Your task to perform on an android device: change keyboard looks Image 0: 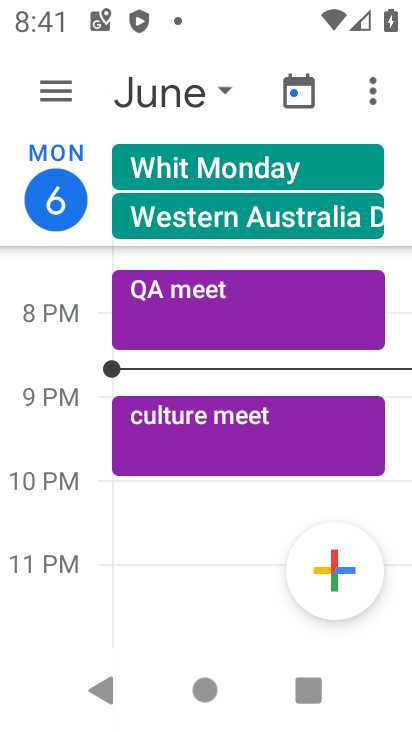
Step 0: press home button
Your task to perform on an android device: change keyboard looks Image 1: 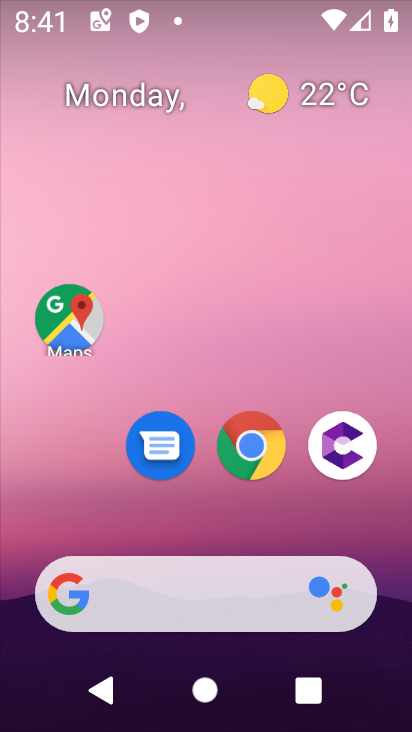
Step 1: drag from (189, 328) to (174, 47)
Your task to perform on an android device: change keyboard looks Image 2: 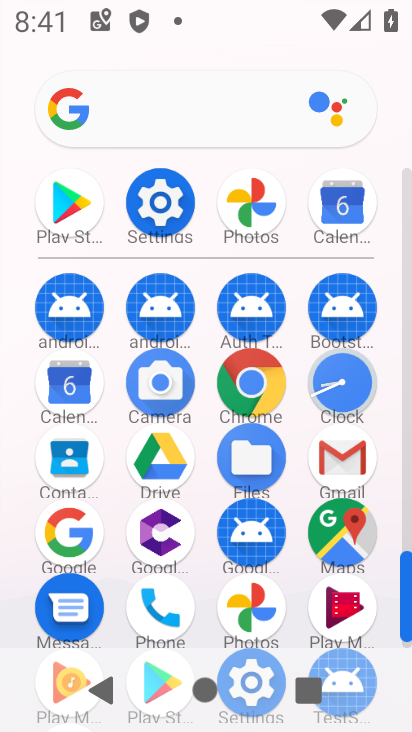
Step 2: click (172, 193)
Your task to perform on an android device: change keyboard looks Image 3: 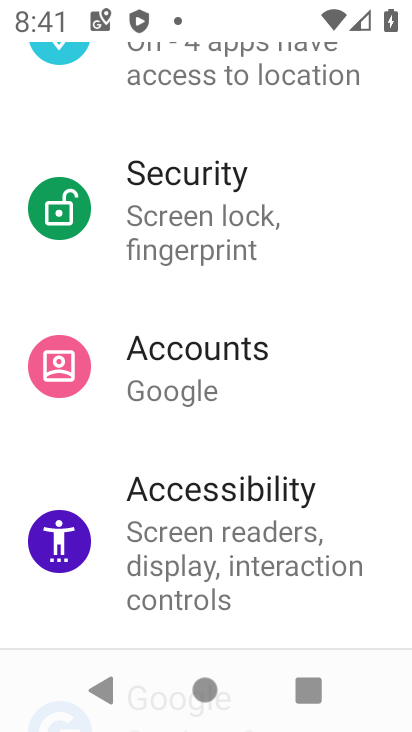
Step 3: drag from (65, 616) to (107, 178)
Your task to perform on an android device: change keyboard looks Image 4: 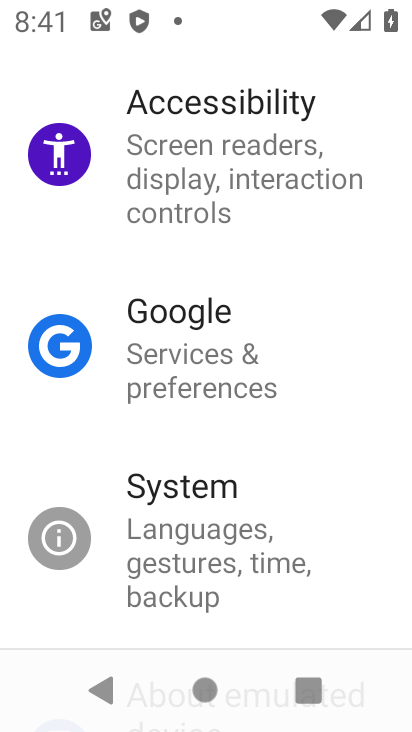
Step 4: drag from (67, 611) to (51, 387)
Your task to perform on an android device: change keyboard looks Image 5: 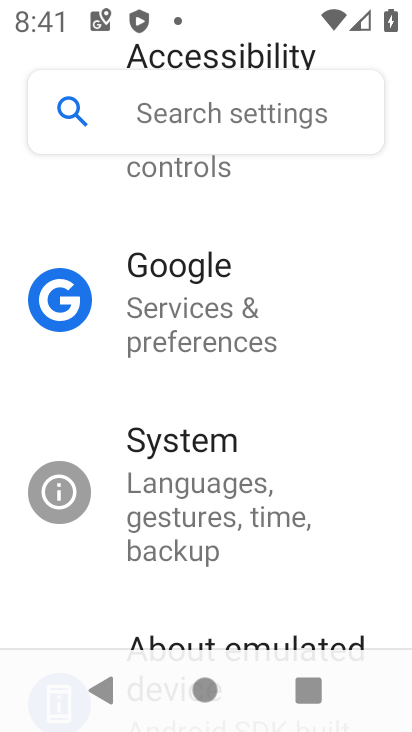
Step 5: click (199, 524)
Your task to perform on an android device: change keyboard looks Image 6: 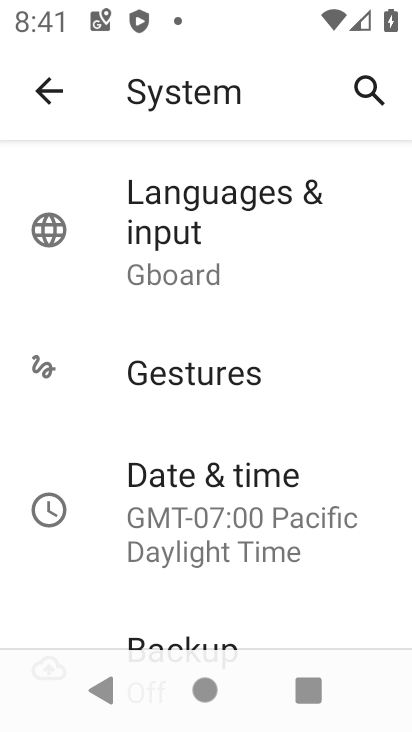
Step 6: click (178, 204)
Your task to perform on an android device: change keyboard looks Image 7: 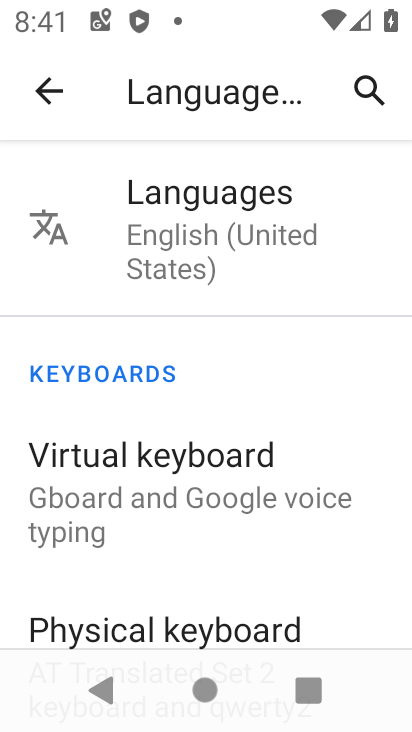
Step 7: click (78, 483)
Your task to perform on an android device: change keyboard looks Image 8: 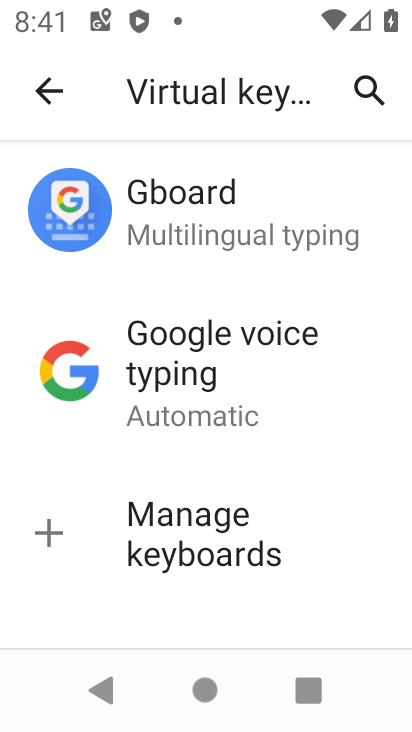
Step 8: click (115, 234)
Your task to perform on an android device: change keyboard looks Image 9: 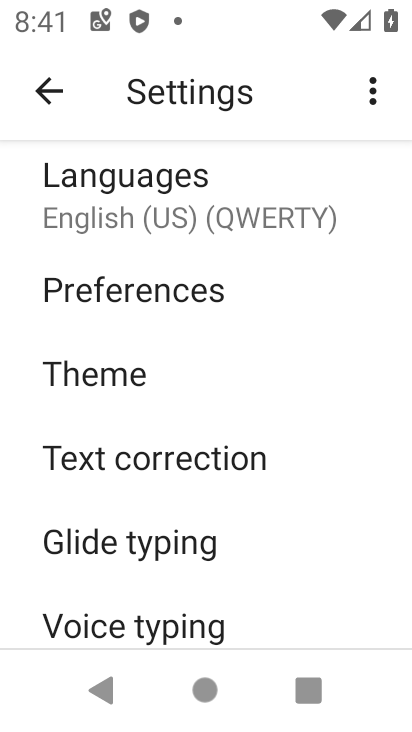
Step 9: click (101, 381)
Your task to perform on an android device: change keyboard looks Image 10: 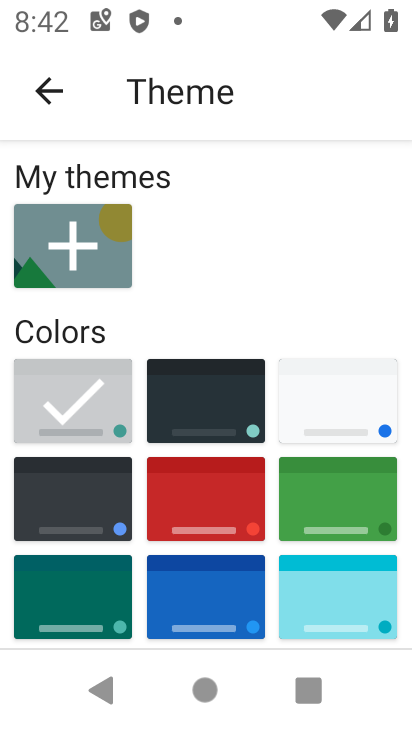
Step 10: click (195, 503)
Your task to perform on an android device: change keyboard looks Image 11: 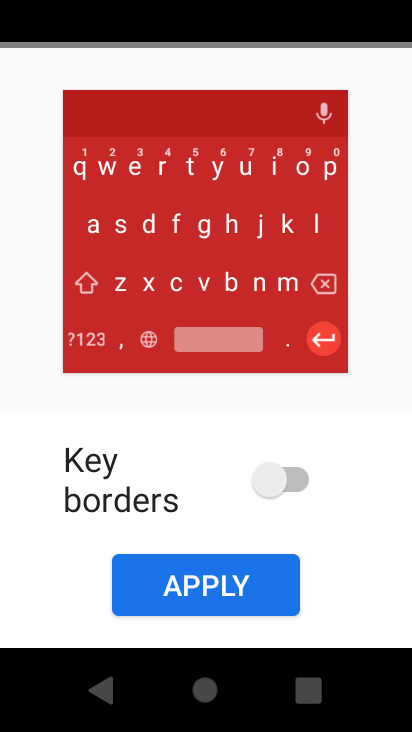
Step 11: click (225, 584)
Your task to perform on an android device: change keyboard looks Image 12: 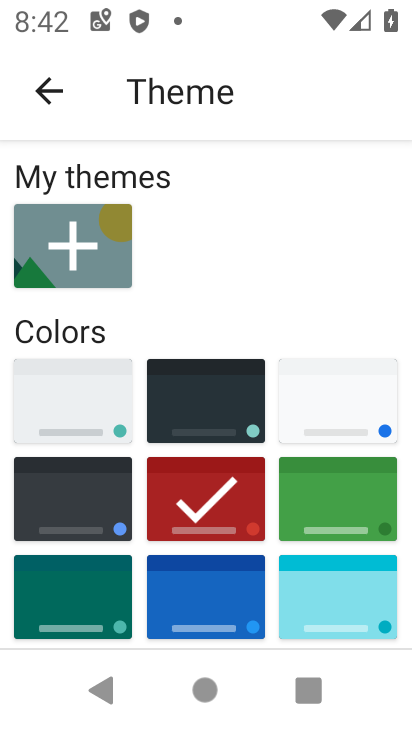
Step 12: task complete